Your task to perform on an android device: Empty the shopping cart on target. Add alienware area 51 to the cart on target Image 0: 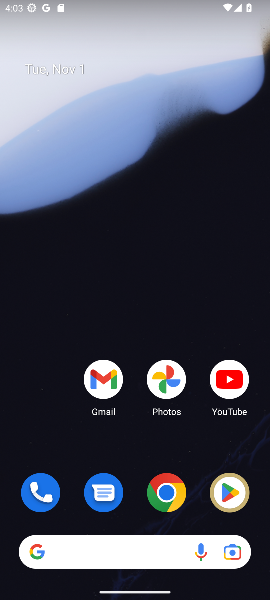
Step 0: click (173, 495)
Your task to perform on an android device: Empty the shopping cart on target. Add alienware area 51 to the cart on target Image 1: 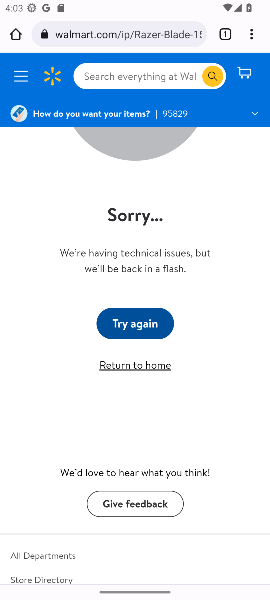
Step 1: click (76, 35)
Your task to perform on an android device: Empty the shopping cart on target. Add alienware area 51 to the cart on target Image 2: 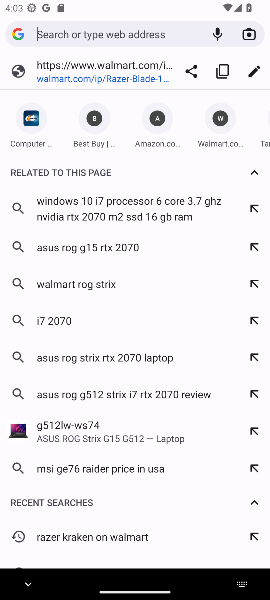
Step 2: type "target"
Your task to perform on an android device: Empty the shopping cart on target. Add alienware area 51 to the cart on target Image 3: 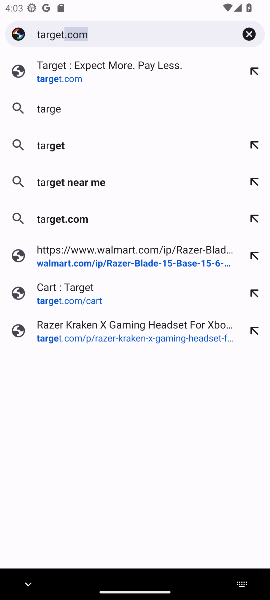
Step 3: type ""
Your task to perform on an android device: Empty the shopping cart on target. Add alienware area 51 to the cart on target Image 4: 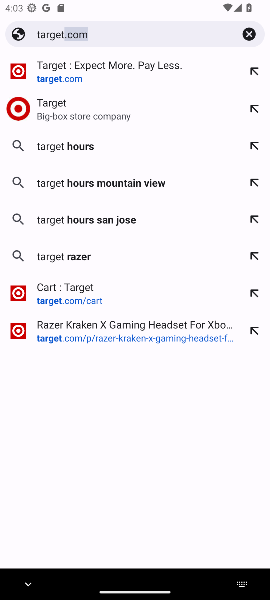
Step 4: click (141, 76)
Your task to perform on an android device: Empty the shopping cart on target. Add alienware area 51 to the cart on target Image 5: 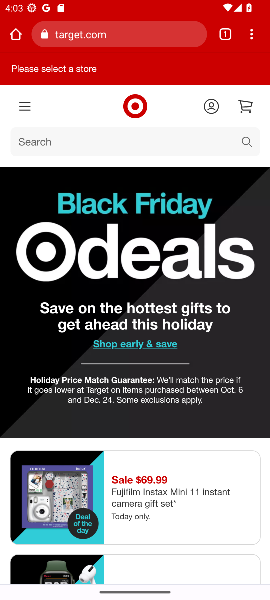
Step 5: click (210, 130)
Your task to perform on an android device: Empty the shopping cart on target. Add alienware area 51 to the cart on target Image 6: 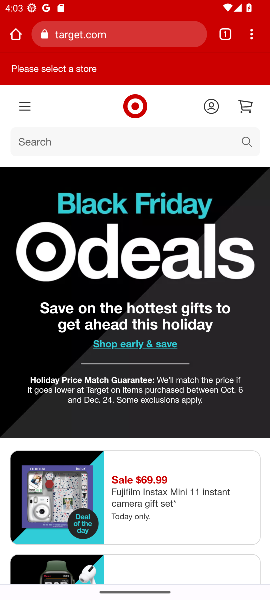
Step 6: click (204, 137)
Your task to perform on an android device: Empty the shopping cart on target. Add alienware area 51 to the cart on target Image 7: 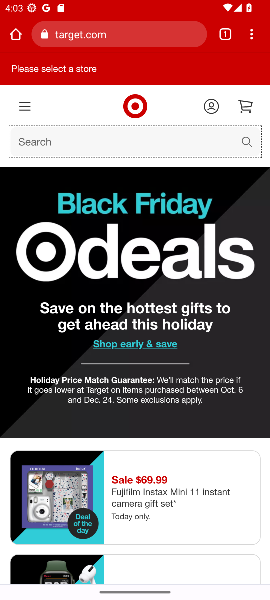
Step 7: click (173, 146)
Your task to perform on an android device: Empty the shopping cart on target. Add alienware area 51 to the cart on target Image 8: 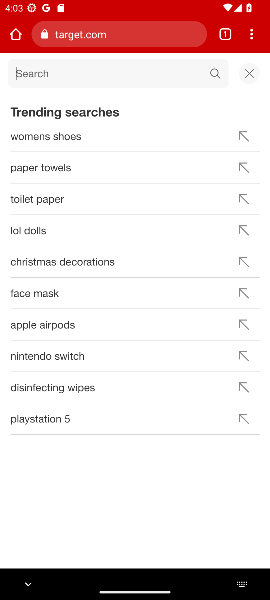
Step 8: type "alienware area 51 "
Your task to perform on an android device: Empty the shopping cart on target. Add alienware area 51 to the cart on target Image 9: 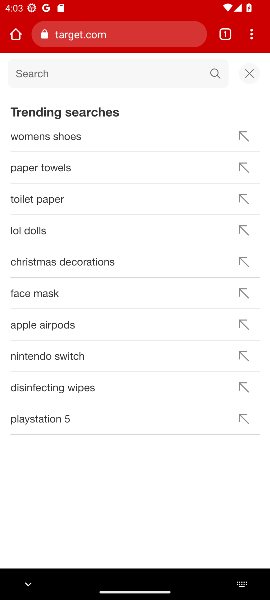
Step 9: type ""
Your task to perform on an android device: Empty the shopping cart on target. Add alienware area 51 to the cart on target Image 10: 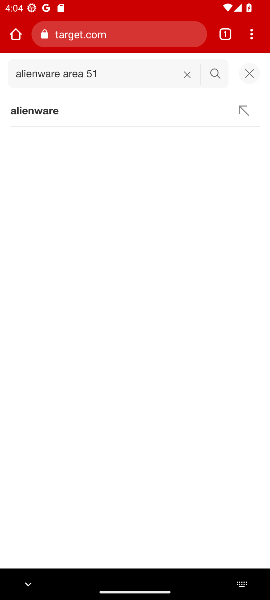
Step 10: press enter
Your task to perform on an android device: Empty the shopping cart on target. Add alienware area 51 to the cart on target Image 11: 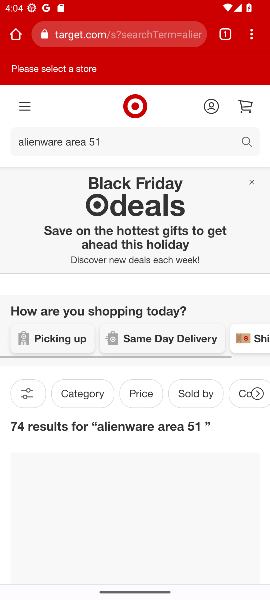
Step 11: drag from (200, 494) to (219, 286)
Your task to perform on an android device: Empty the shopping cart on target. Add alienware area 51 to the cart on target Image 12: 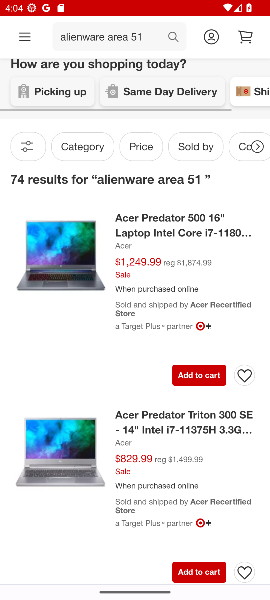
Step 12: drag from (147, 455) to (172, 252)
Your task to perform on an android device: Empty the shopping cart on target. Add alienware area 51 to the cart on target Image 13: 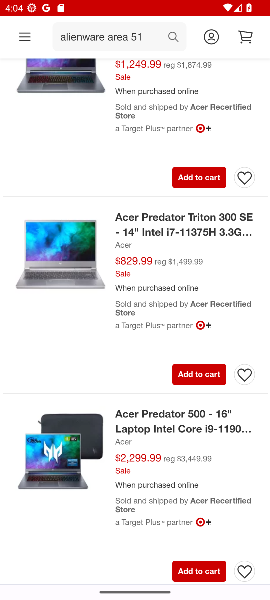
Step 13: drag from (163, 443) to (173, 217)
Your task to perform on an android device: Empty the shopping cart on target. Add alienware area 51 to the cart on target Image 14: 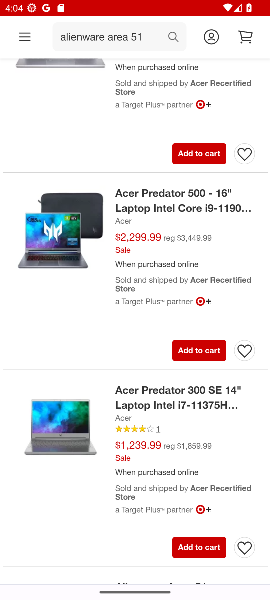
Step 14: drag from (171, 419) to (178, 203)
Your task to perform on an android device: Empty the shopping cart on target. Add alienware area 51 to the cart on target Image 15: 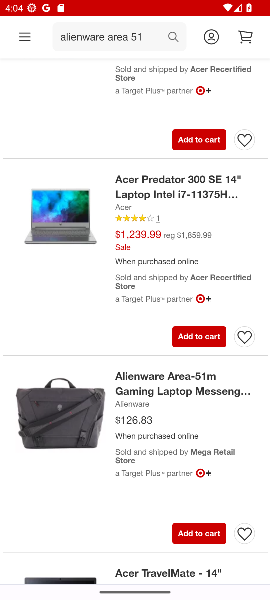
Step 15: drag from (167, 442) to (195, 142)
Your task to perform on an android device: Empty the shopping cart on target. Add alienware area 51 to the cart on target Image 16: 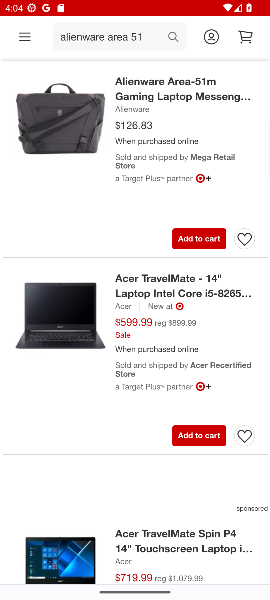
Step 16: drag from (167, 419) to (197, 207)
Your task to perform on an android device: Empty the shopping cart on target. Add alienware area 51 to the cart on target Image 17: 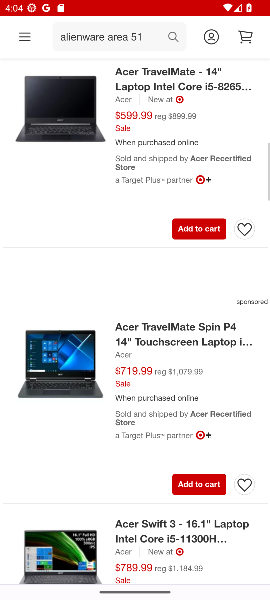
Step 17: drag from (160, 479) to (175, 291)
Your task to perform on an android device: Empty the shopping cart on target. Add alienware area 51 to the cart on target Image 18: 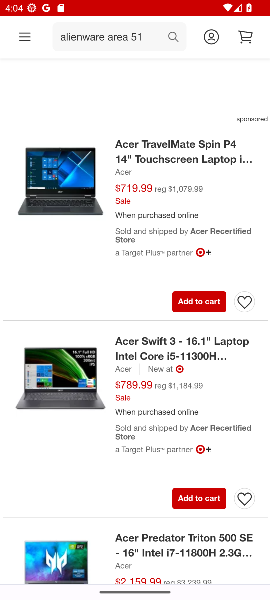
Step 18: drag from (133, 456) to (174, 271)
Your task to perform on an android device: Empty the shopping cart on target. Add alienware area 51 to the cart on target Image 19: 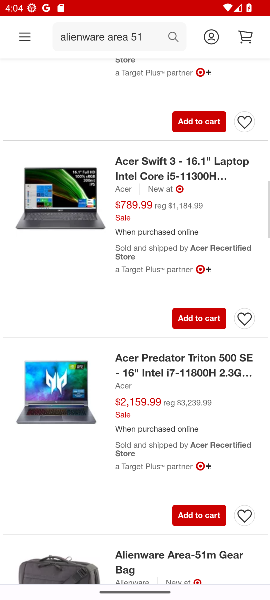
Step 19: drag from (128, 420) to (147, 275)
Your task to perform on an android device: Empty the shopping cart on target. Add alienware area 51 to the cart on target Image 20: 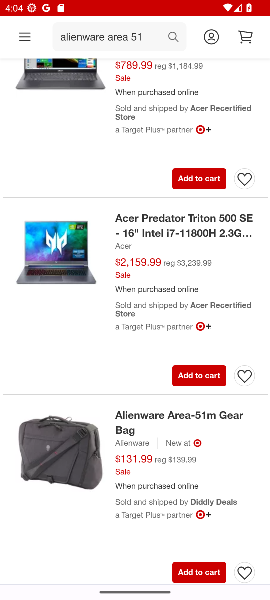
Step 20: drag from (130, 475) to (182, 197)
Your task to perform on an android device: Empty the shopping cart on target. Add alienware area 51 to the cart on target Image 21: 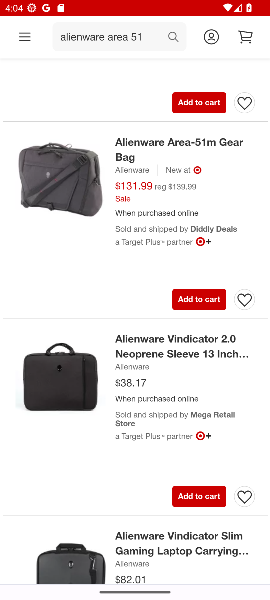
Step 21: click (174, 151)
Your task to perform on an android device: Empty the shopping cart on target. Add alienware area 51 to the cart on target Image 22: 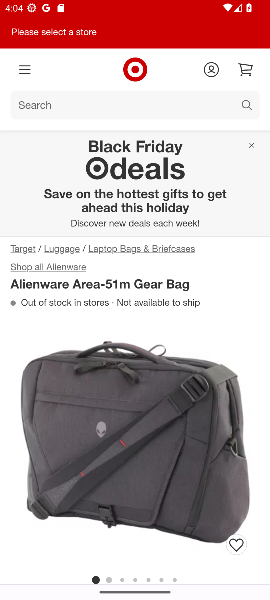
Step 22: click (165, 259)
Your task to perform on an android device: Empty the shopping cart on target. Add alienware area 51 to the cart on target Image 23: 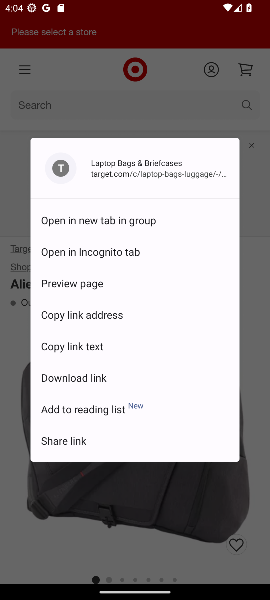
Step 23: drag from (129, 389) to (186, 232)
Your task to perform on an android device: Empty the shopping cart on target. Add alienware area 51 to the cart on target Image 24: 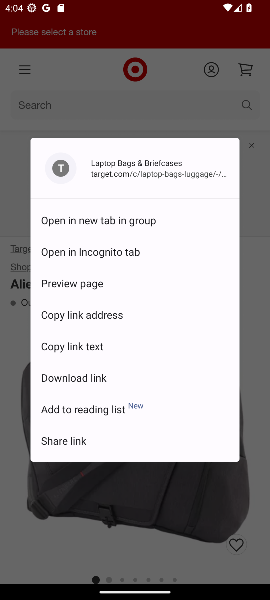
Step 24: click (268, 315)
Your task to perform on an android device: Empty the shopping cart on target. Add alienware area 51 to the cart on target Image 25: 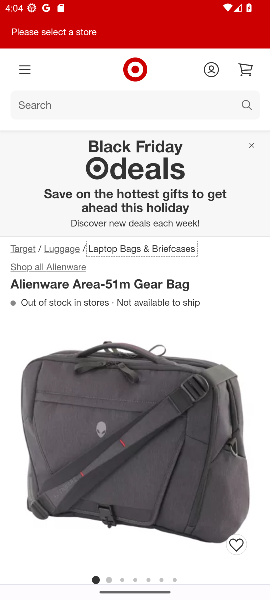
Step 25: drag from (120, 450) to (179, 278)
Your task to perform on an android device: Empty the shopping cart on target. Add alienware area 51 to the cart on target Image 26: 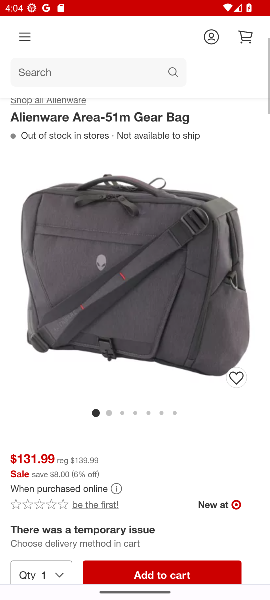
Step 26: click (155, 296)
Your task to perform on an android device: Empty the shopping cart on target. Add alienware area 51 to the cart on target Image 27: 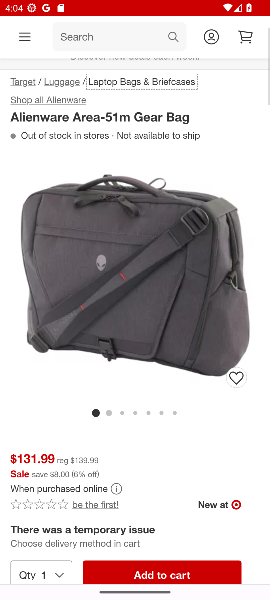
Step 27: drag from (125, 528) to (146, 348)
Your task to perform on an android device: Empty the shopping cart on target. Add alienware area 51 to the cart on target Image 28: 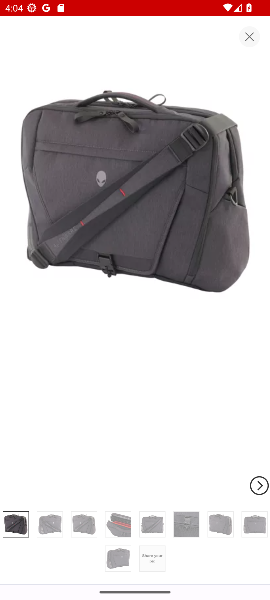
Step 28: click (255, 40)
Your task to perform on an android device: Empty the shopping cart on target. Add alienware area 51 to the cart on target Image 29: 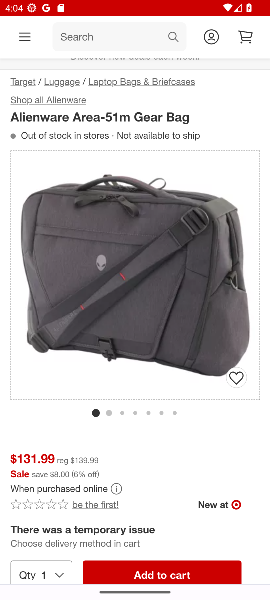
Step 29: click (112, 560)
Your task to perform on an android device: Empty the shopping cart on target. Add alienware area 51 to the cart on target Image 30: 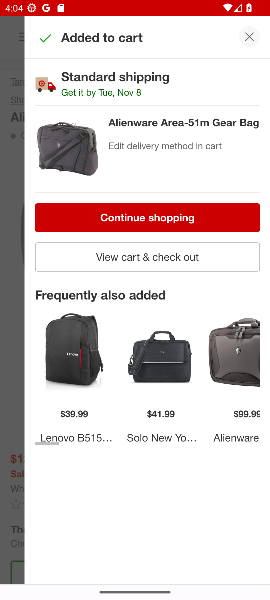
Step 30: click (134, 268)
Your task to perform on an android device: Empty the shopping cart on target. Add alienware area 51 to the cart on target Image 31: 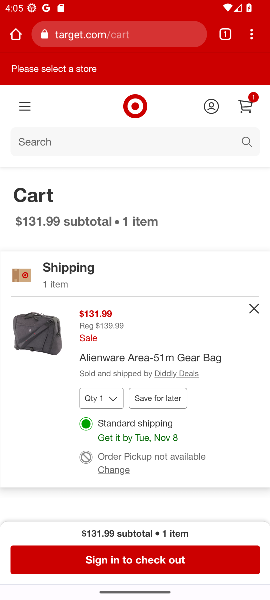
Step 31: click (110, 562)
Your task to perform on an android device: Empty the shopping cart on target. Add alienware area 51 to the cart on target Image 32: 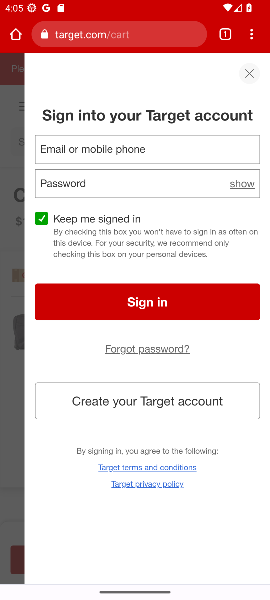
Step 32: click (258, 78)
Your task to perform on an android device: Empty the shopping cart on target. Add alienware area 51 to the cart on target Image 33: 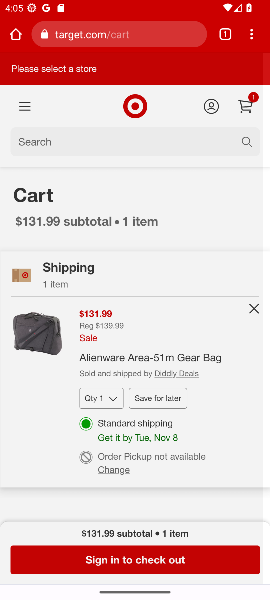
Step 33: drag from (160, 343) to (180, 237)
Your task to perform on an android device: Empty the shopping cart on target. Add alienware area 51 to the cart on target Image 34: 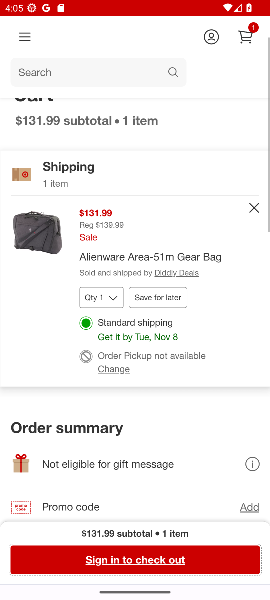
Step 34: drag from (146, 283) to (147, 206)
Your task to perform on an android device: Empty the shopping cart on target. Add alienware area 51 to the cart on target Image 35: 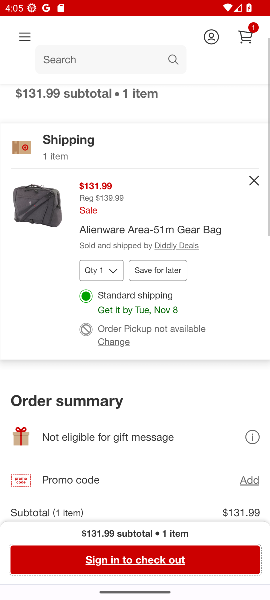
Step 35: drag from (129, 324) to (145, 204)
Your task to perform on an android device: Empty the shopping cart on target. Add alienware area 51 to the cart on target Image 36: 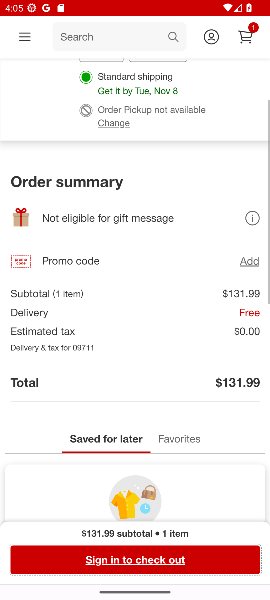
Step 36: click (123, 203)
Your task to perform on an android device: Empty the shopping cart on target. Add alienware area 51 to the cart on target Image 37: 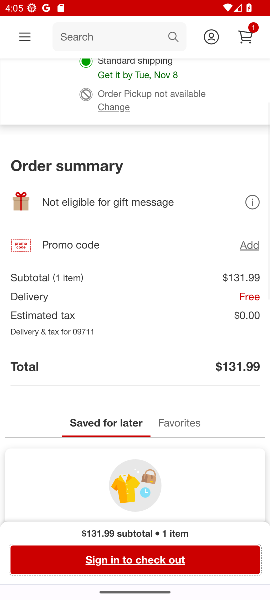
Step 37: task complete